Your task to perform on an android device: toggle airplane mode Image 0: 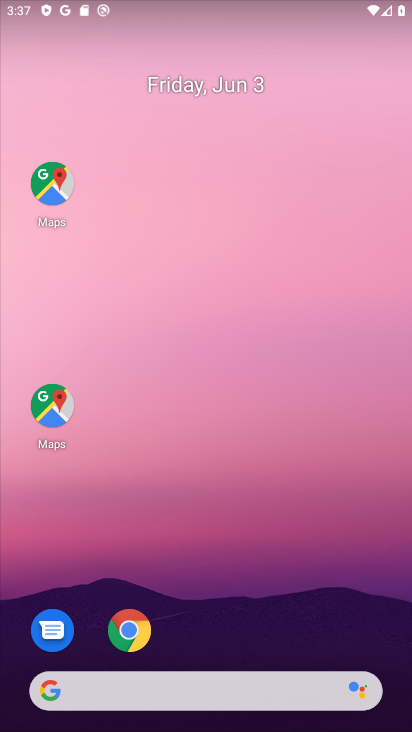
Step 0: drag from (235, 465) to (410, 406)
Your task to perform on an android device: toggle airplane mode Image 1: 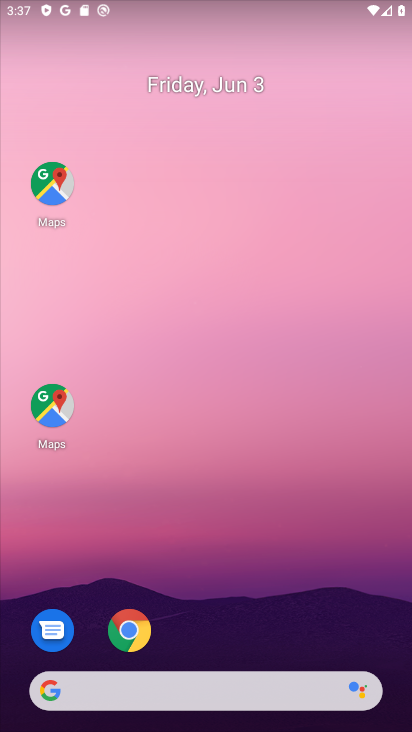
Step 1: drag from (291, 696) to (219, 5)
Your task to perform on an android device: toggle airplane mode Image 2: 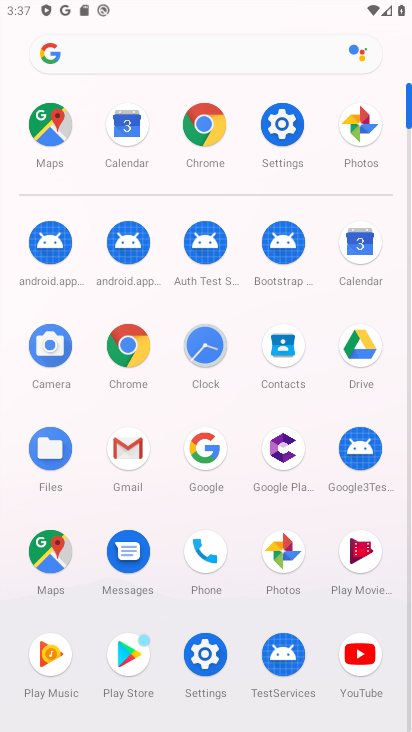
Step 2: click (202, 659)
Your task to perform on an android device: toggle airplane mode Image 3: 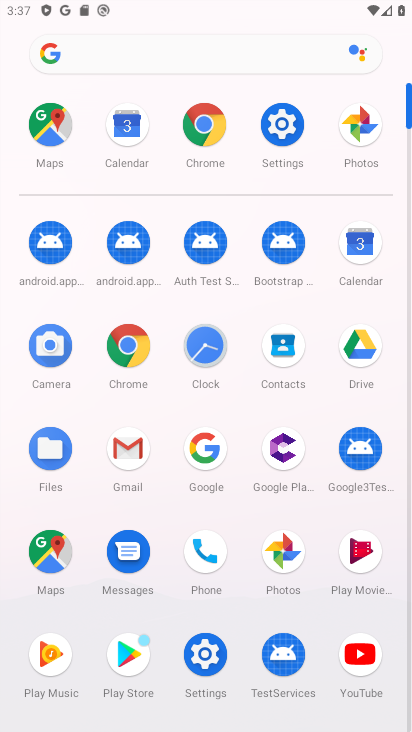
Step 3: click (202, 659)
Your task to perform on an android device: toggle airplane mode Image 4: 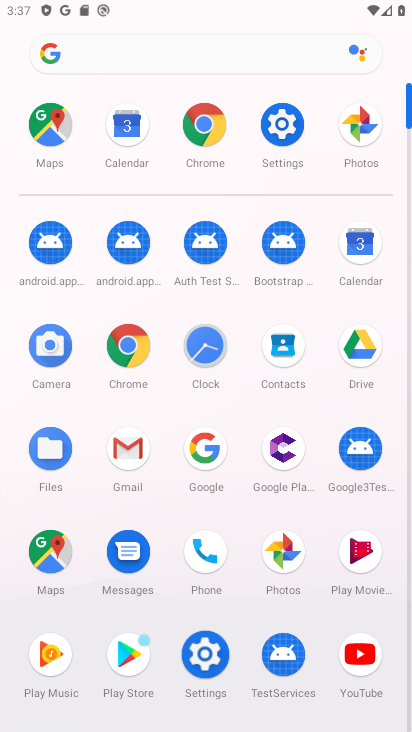
Step 4: click (202, 659)
Your task to perform on an android device: toggle airplane mode Image 5: 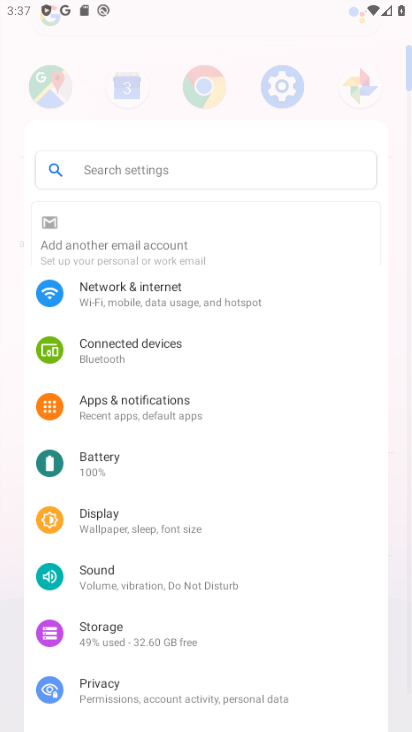
Step 5: click (202, 659)
Your task to perform on an android device: toggle airplane mode Image 6: 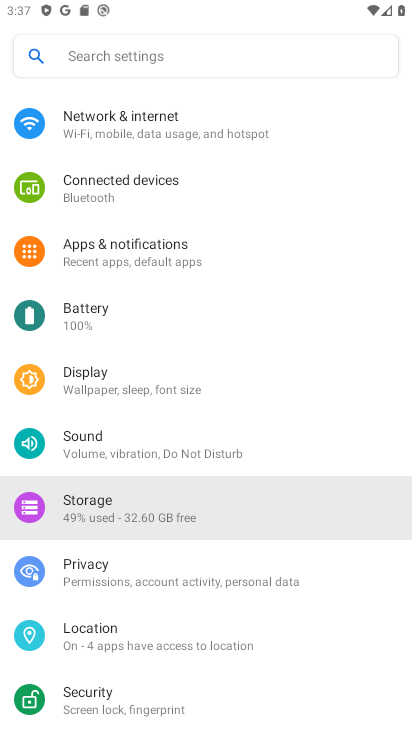
Step 6: click (203, 655)
Your task to perform on an android device: toggle airplane mode Image 7: 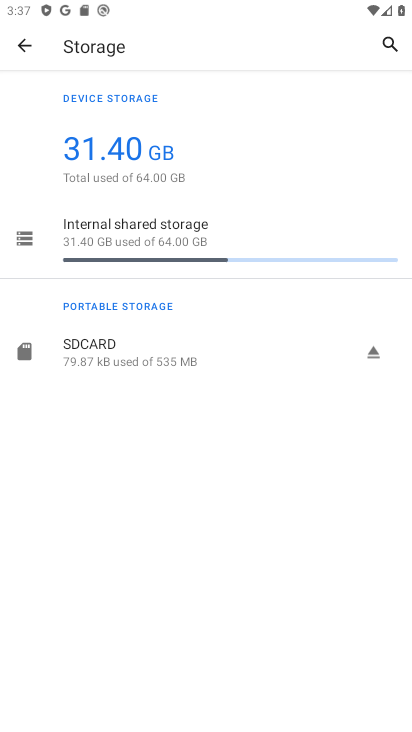
Step 7: click (29, 58)
Your task to perform on an android device: toggle airplane mode Image 8: 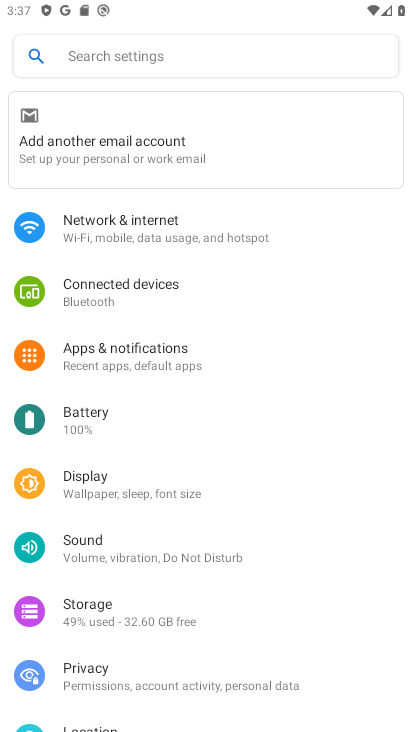
Step 8: click (138, 236)
Your task to perform on an android device: toggle airplane mode Image 9: 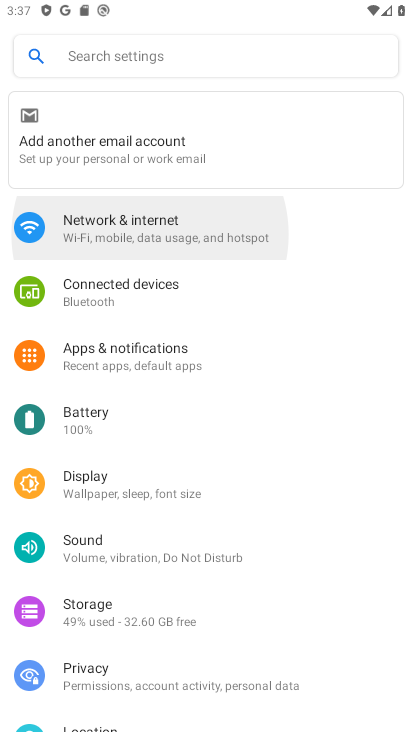
Step 9: click (138, 236)
Your task to perform on an android device: toggle airplane mode Image 10: 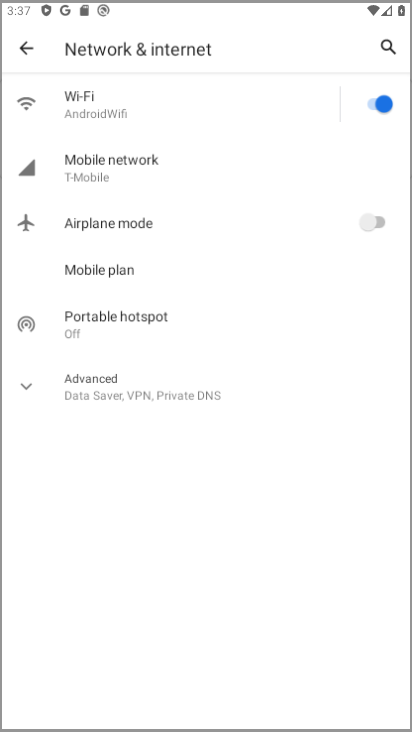
Step 10: click (140, 235)
Your task to perform on an android device: toggle airplane mode Image 11: 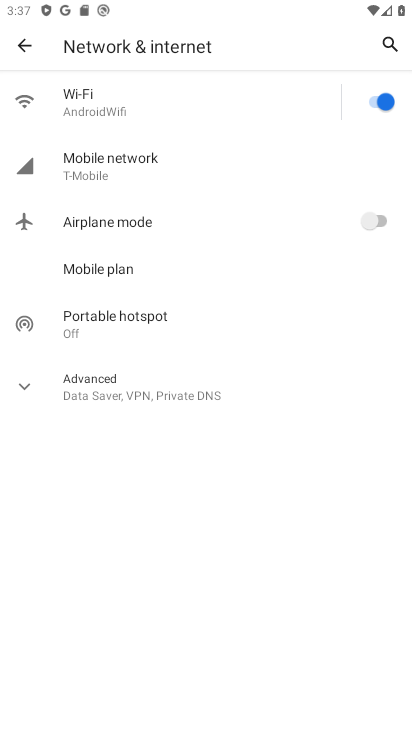
Step 11: click (140, 235)
Your task to perform on an android device: toggle airplane mode Image 12: 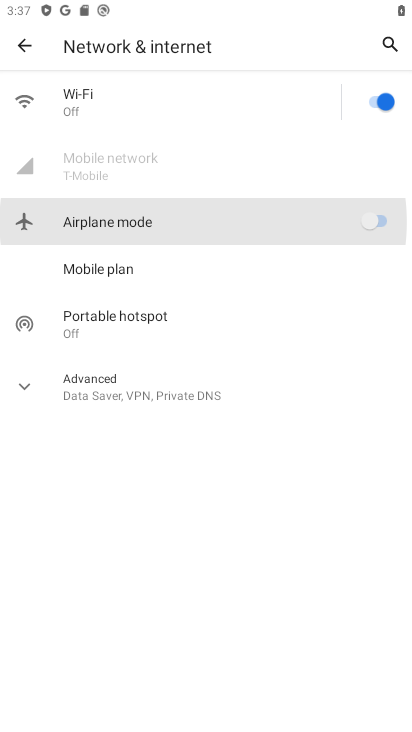
Step 12: click (140, 235)
Your task to perform on an android device: toggle airplane mode Image 13: 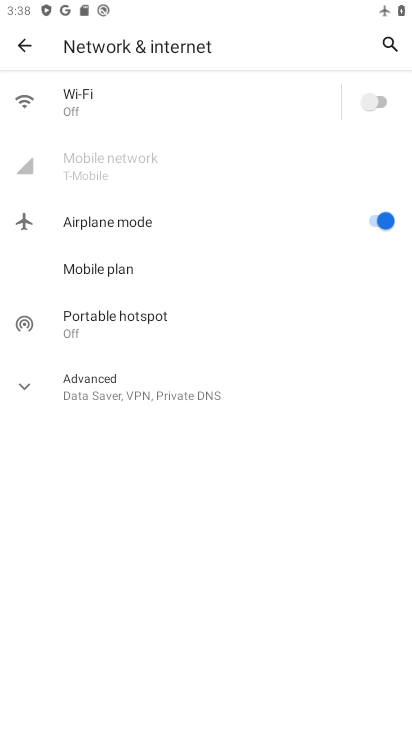
Step 13: click (388, 222)
Your task to perform on an android device: toggle airplane mode Image 14: 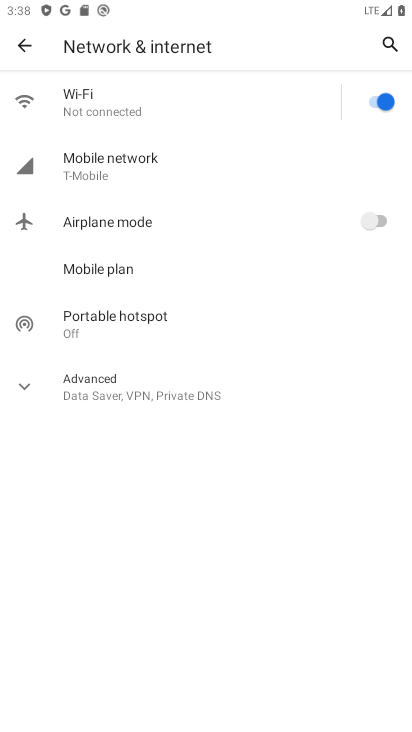
Step 14: task complete